Your task to perform on an android device: What's on my calendar tomorrow? Image 0: 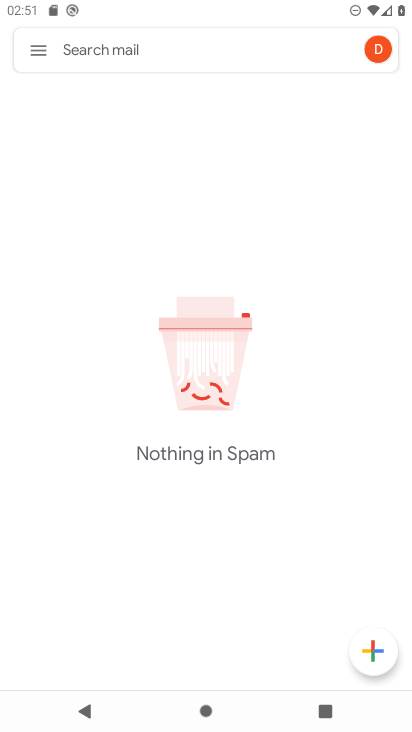
Step 0: press home button
Your task to perform on an android device: What's on my calendar tomorrow? Image 1: 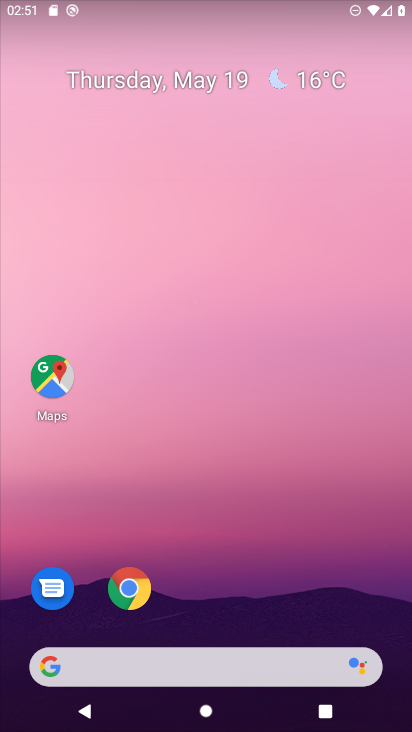
Step 1: drag from (294, 602) to (339, 28)
Your task to perform on an android device: What's on my calendar tomorrow? Image 2: 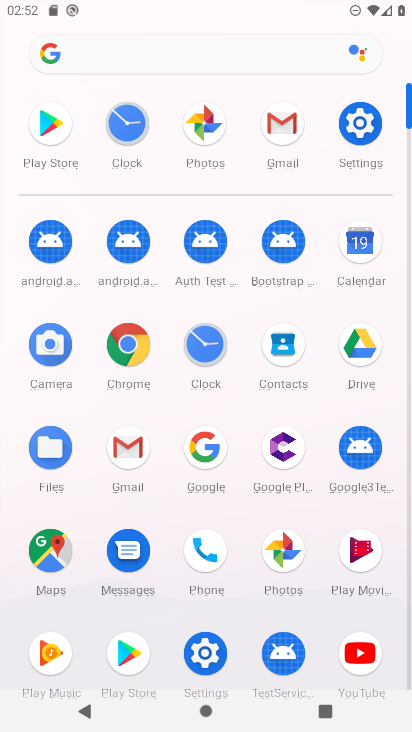
Step 2: click (358, 250)
Your task to perform on an android device: What's on my calendar tomorrow? Image 3: 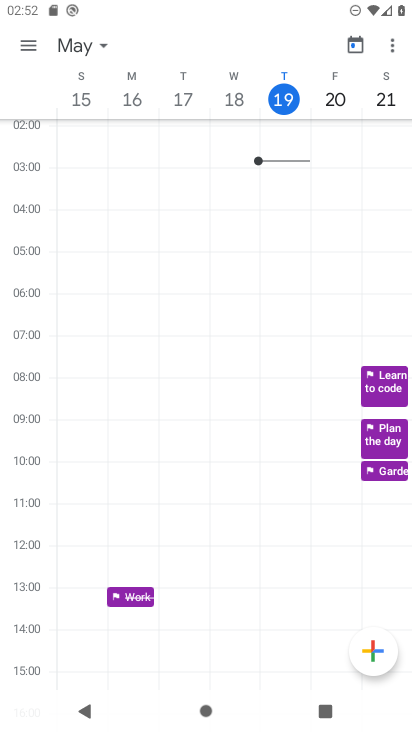
Step 3: click (29, 44)
Your task to perform on an android device: What's on my calendar tomorrow? Image 4: 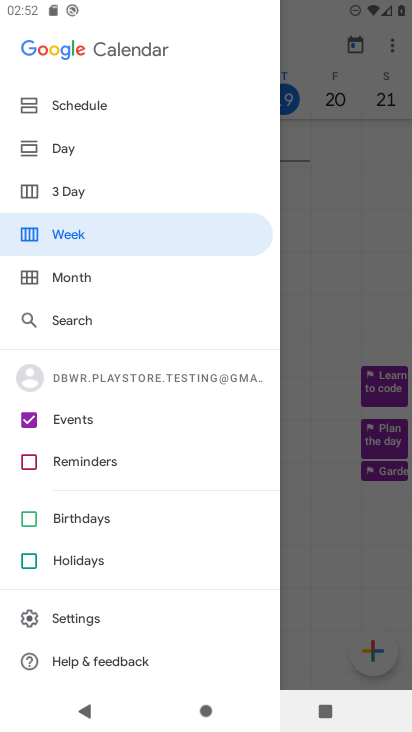
Step 4: click (38, 104)
Your task to perform on an android device: What's on my calendar tomorrow? Image 5: 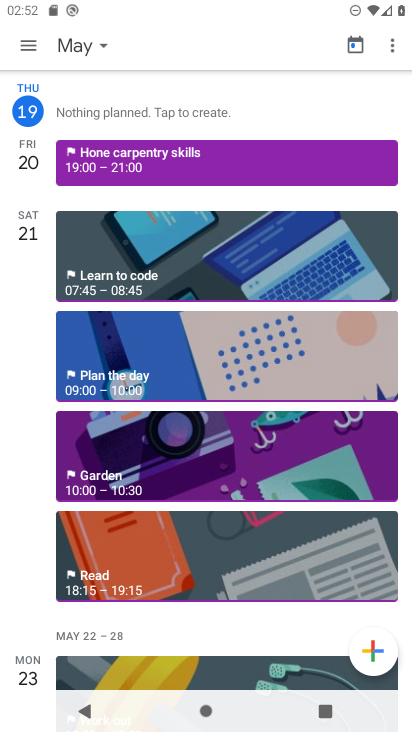
Step 5: click (172, 163)
Your task to perform on an android device: What's on my calendar tomorrow? Image 6: 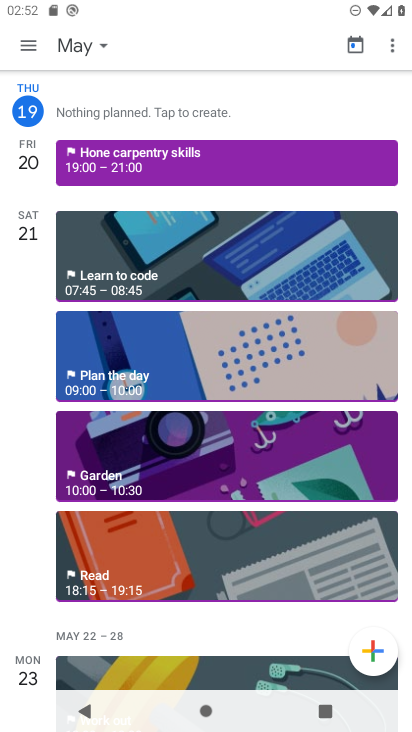
Step 6: click (172, 163)
Your task to perform on an android device: What's on my calendar tomorrow? Image 7: 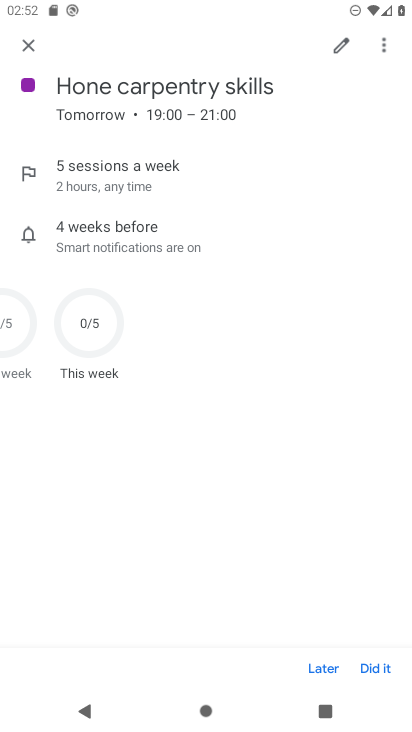
Step 7: task complete